Your task to perform on an android device: Open Maps and search for coffee Image 0: 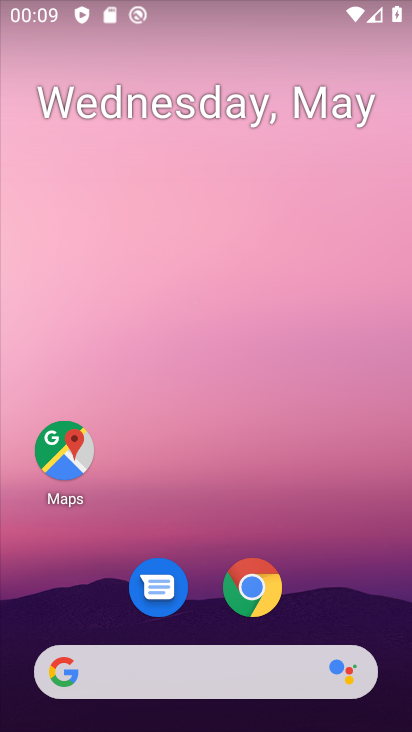
Step 0: click (61, 450)
Your task to perform on an android device: Open Maps and search for coffee Image 1: 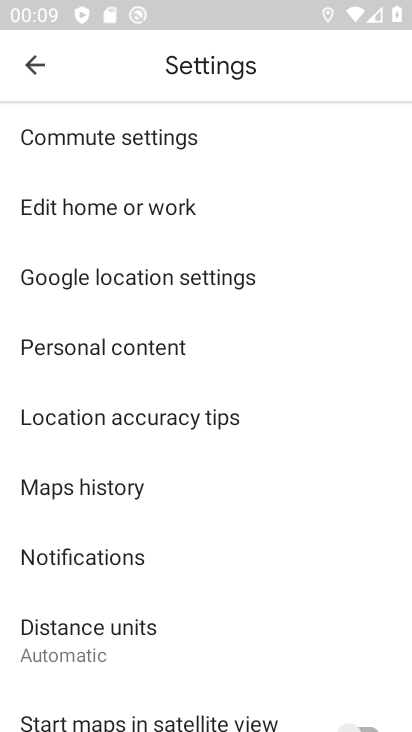
Step 1: click (30, 71)
Your task to perform on an android device: Open Maps and search for coffee Image 2: 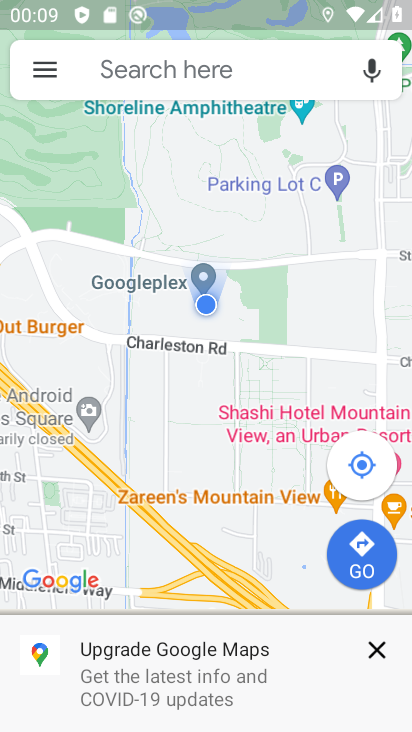
Step 2: click (160, 68)
Your task to perform on an android device: Open Maps and search for coffee Image 3: 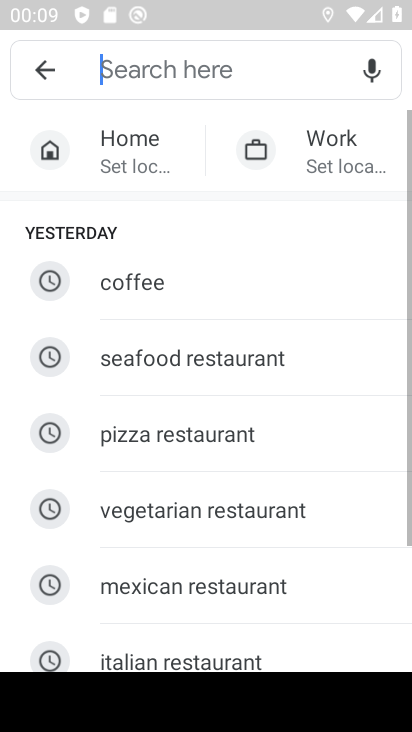
Step 3: click (154, 280)
Your task to perform on an android device: Open Maps and search for coffee Image 4: 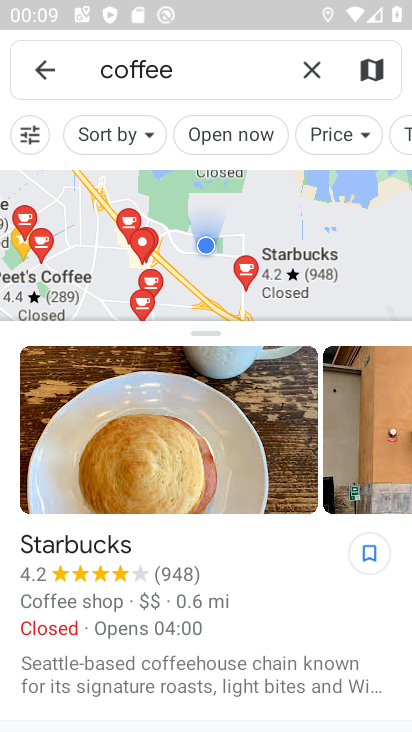
Step 4: task complete